Your task to perform on an android device: Open eBay Image 0: 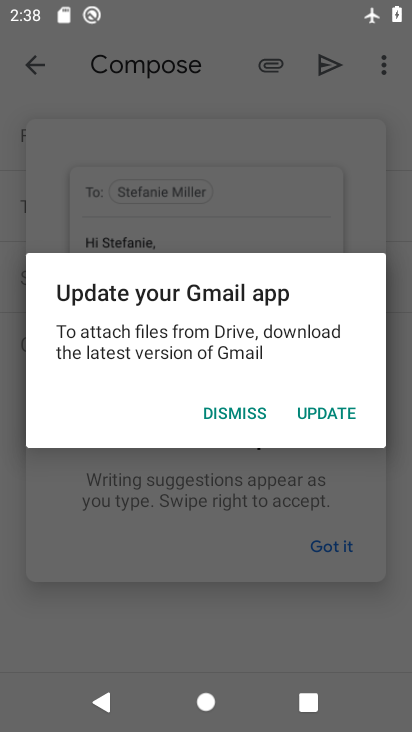
Step 0: press home button
Your task to perform on an android device: Open eBay Image 1: 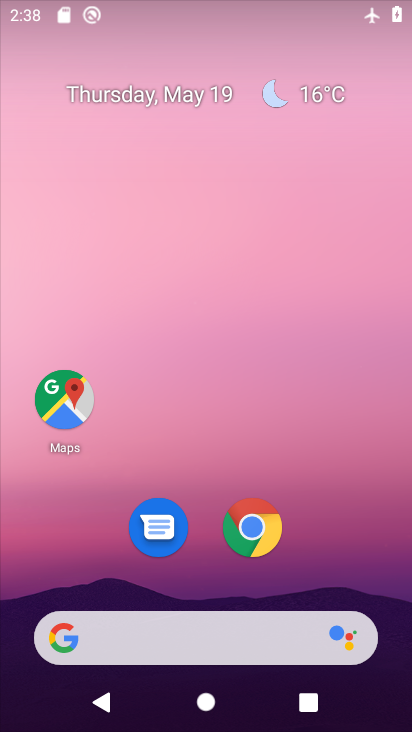
Step 1: click (258, 522)
Your task to perform on an android device: Open eBay Image 2: 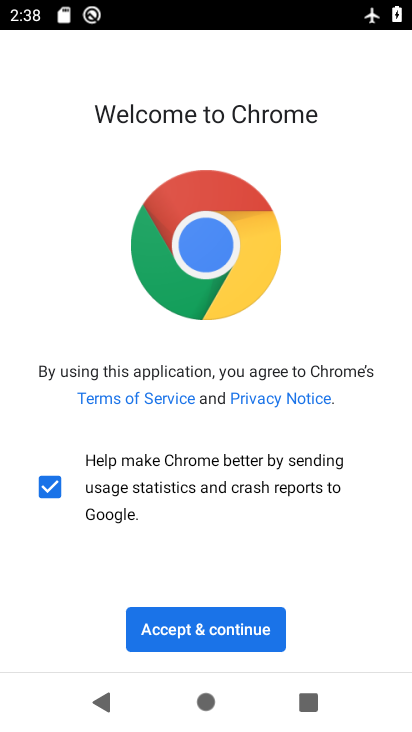
Step 2: click (260, 618)
Your task to perform on an android device: Open eBay Image 3: 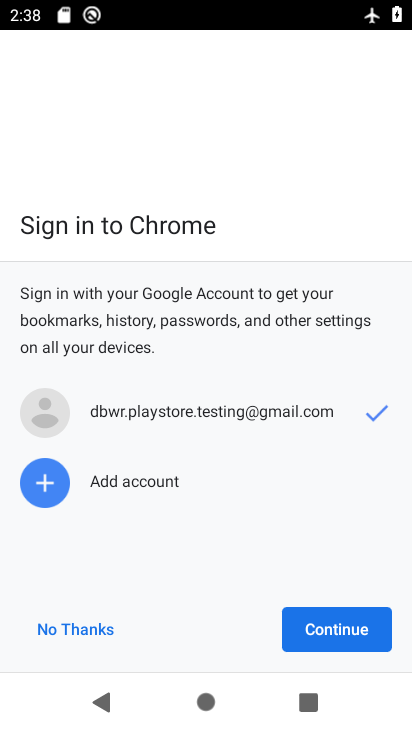
Step 3: click (344, 632)
Your task to perform on an android device: Open eBay Image 4: 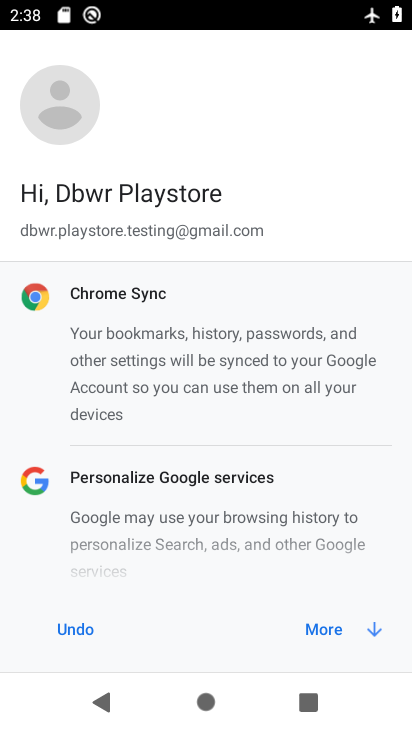
Step 4: click (329, 629)
Your task to perform on an android device: Open eBay Image 5: 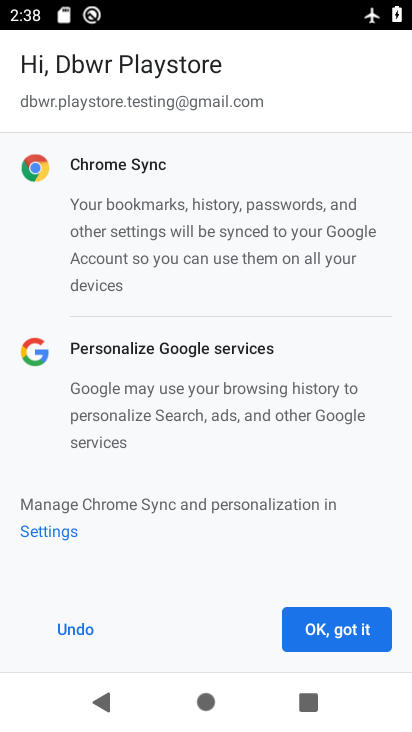
Step 5: click (339, 640)
Your task to perform on an android device: Open eBay Image 6: 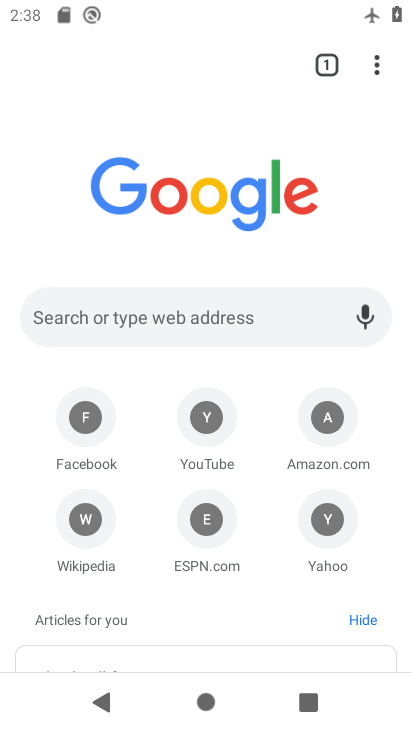
Step 6: click (201, 310)
Your task to perform on an android device: Open eBay Image 7: 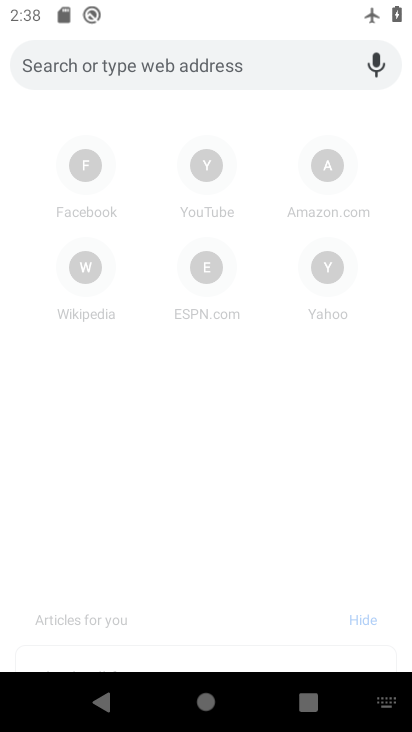
Step 7: type "eBay"
Your task to perform on an android device: Open eBay Image 8: 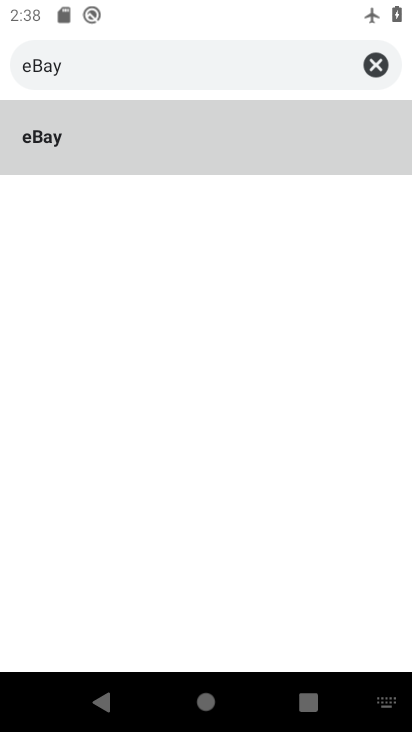
Step 8: click (120, 152)
Your task to perform on an android device: Open eBay Image 9: 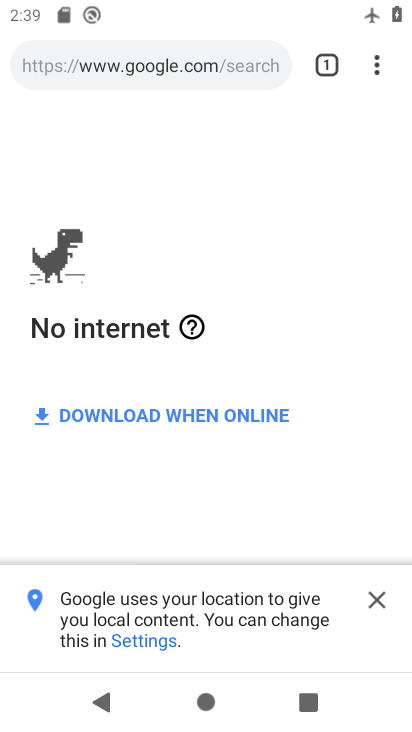
Step 9: task complete